Your task to perform on an android device: What's on my calendar today? Image 0: 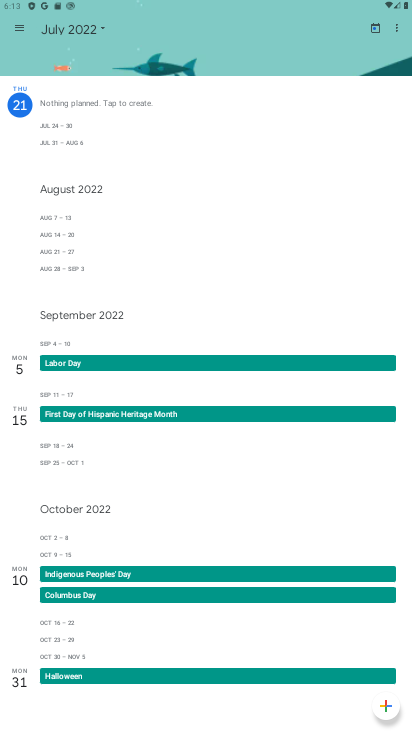
Step 0: press home button
Your task to perform on an android device: What's on my calendar today? Image 1: 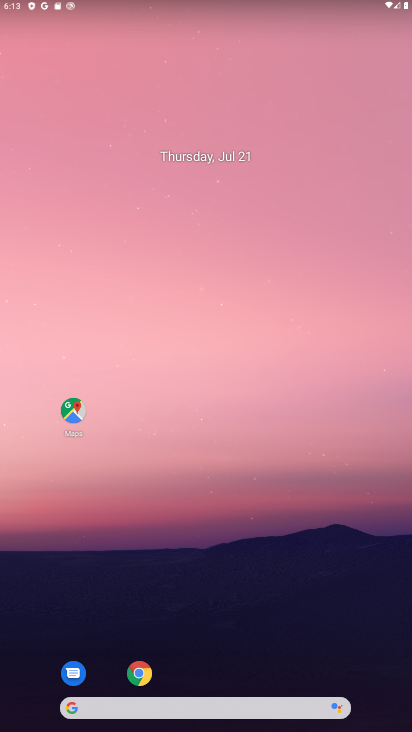
Step 1: drag from (178, 588) to (177, 217)
Your task to perform on an android device: What's on my calendar today? Image 2: 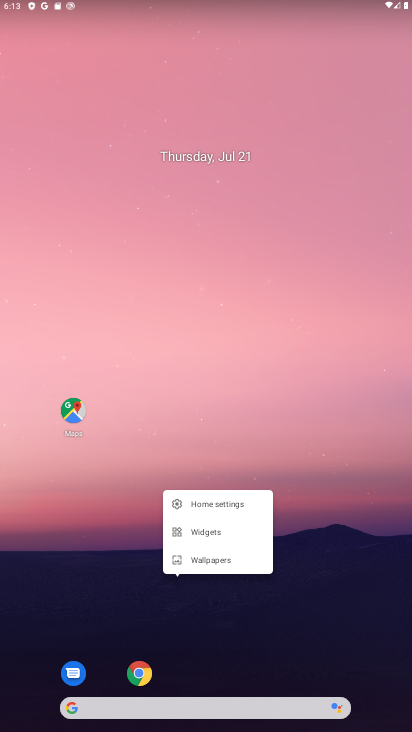
Step 2: click (218, 606)
Your task to perform on an android device: What's on my calendar today? Image 3: 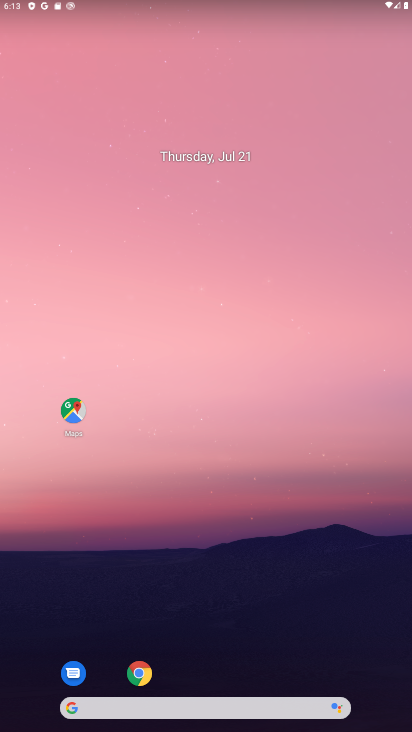
Step 3: drag from (195, 495) to (195, 5)
Your task to perform on an android device: What's on my calendar today? Image 4: 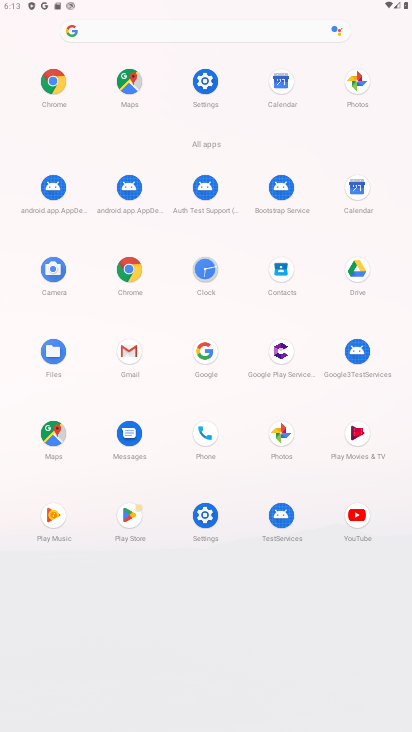
Step 4: click (366, 202)
Your task to perform on an android device: What's on my calendar today? Image 5: 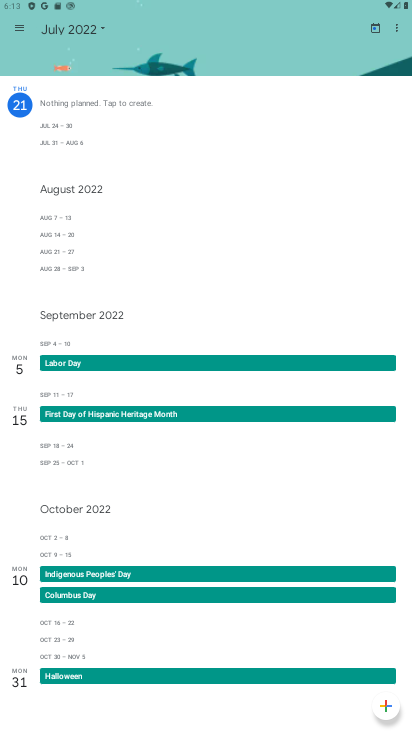
Step 5: task complete